Your task to perform on an android device: Open network settings Image 0: 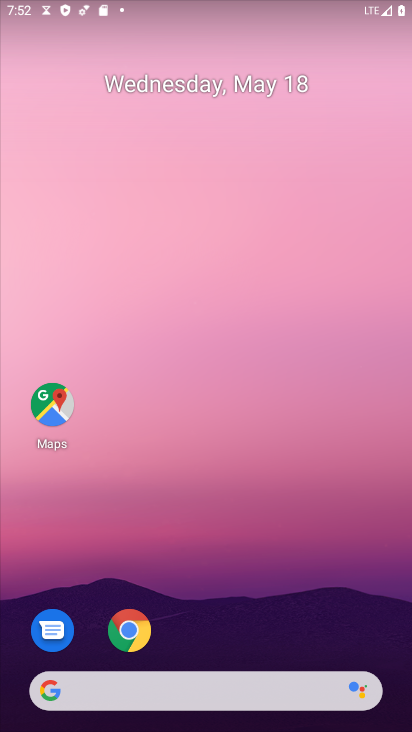
Step 0: drag from (231, 476) to (104, 6)
Your task to perform on an android device: Open network settings Image 1: 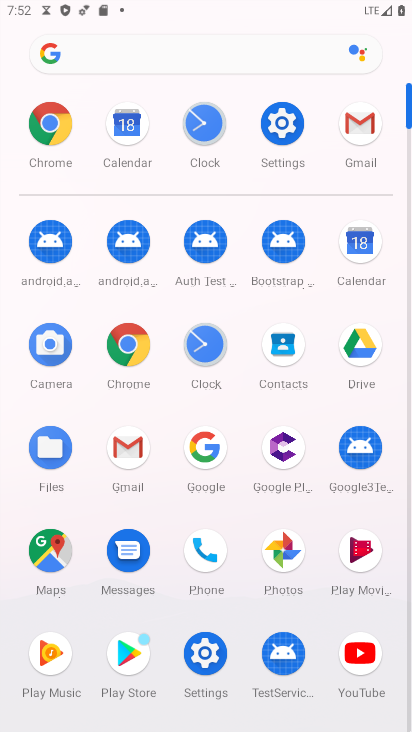
Step 1: click (279, 125)
Your task to perform on an android device: Open network settings Image 2: 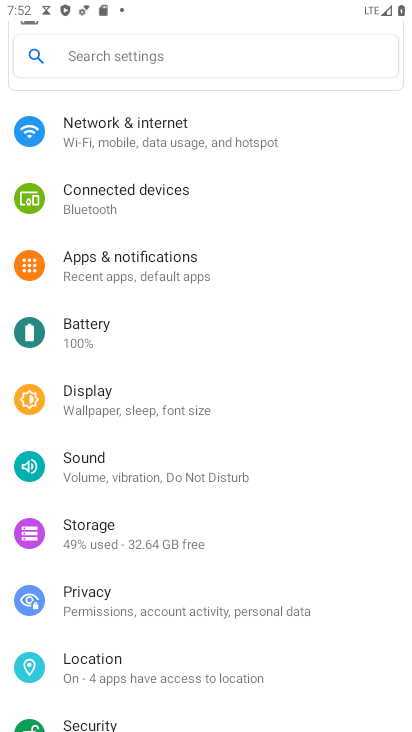
Step 2: click (92, 129)
Your task to perform on an android device: Open network settings Image 3: 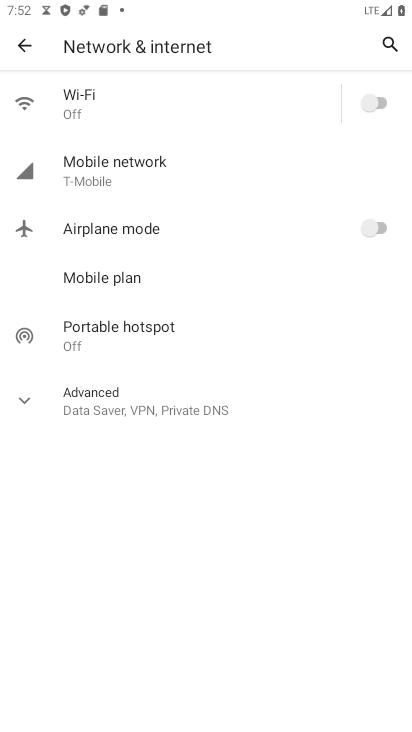
Step 3: task complete